Your task to perform on an android device: change your default location settings in chrome Image 0: 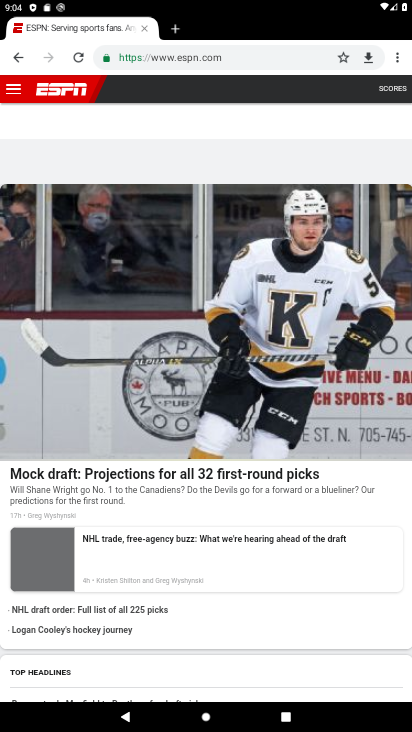
Step 0: click (399, 58)
Your task to perform on an android device: change your default location settings in chrome Image 1: 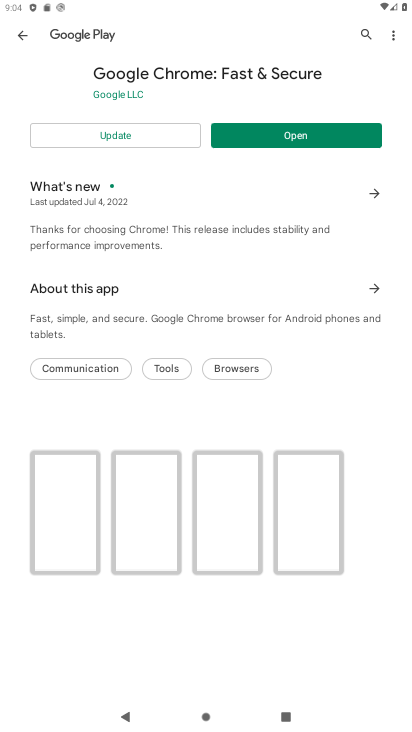
Step 1: press back button
Your task to perform on an android device: change your default location settings in chrome Image 2: 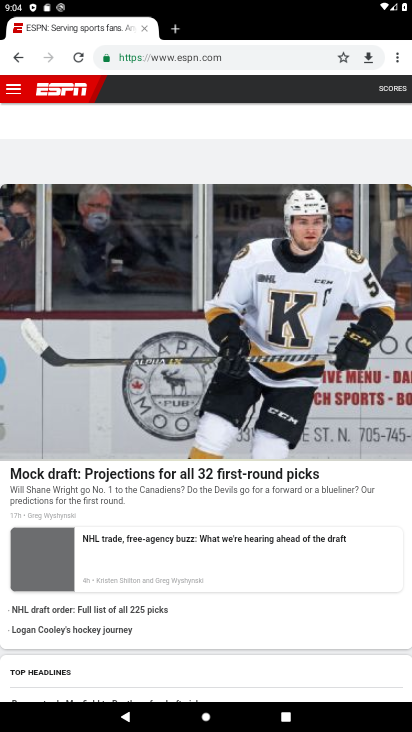
Step 2: click (375, 102)
Your task to perform on an android device: change your default location settings in chrome Image 3: 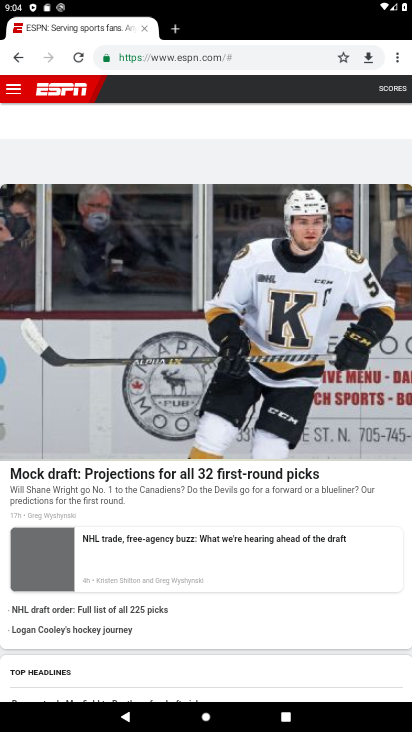
Step 3: click (398, 55)
Your task to perform on an android device: change your default location settings in chrome Image 4: 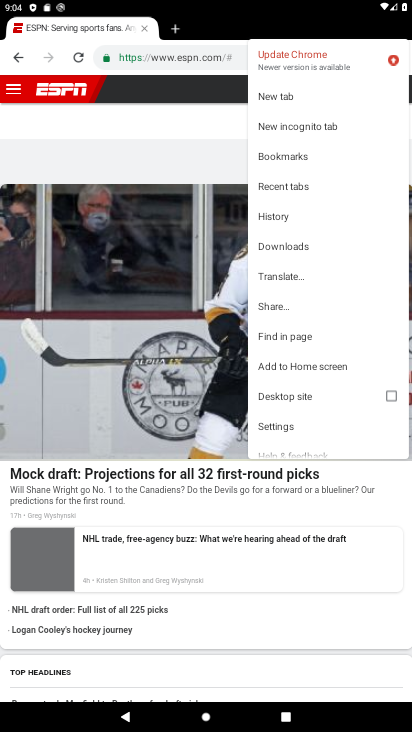
Step 4: click (282, 422)
Your task to perform on an android device: change your default location settings in chrome Image 5: 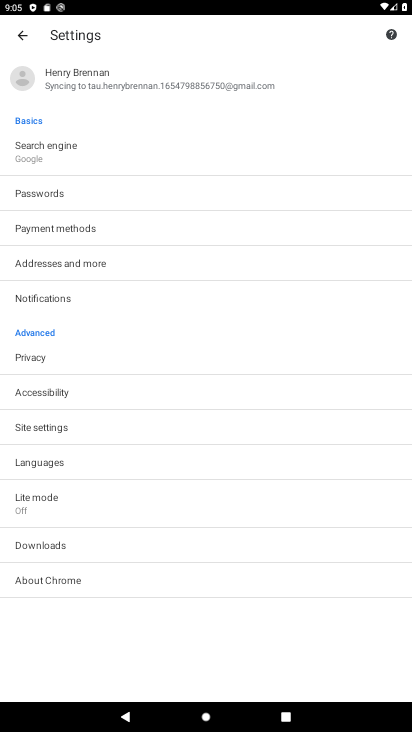
Step 5: drag from (48, 504) to (112, 340)
Your task to perform on an android device: change your default location settings in chrome Image 6: 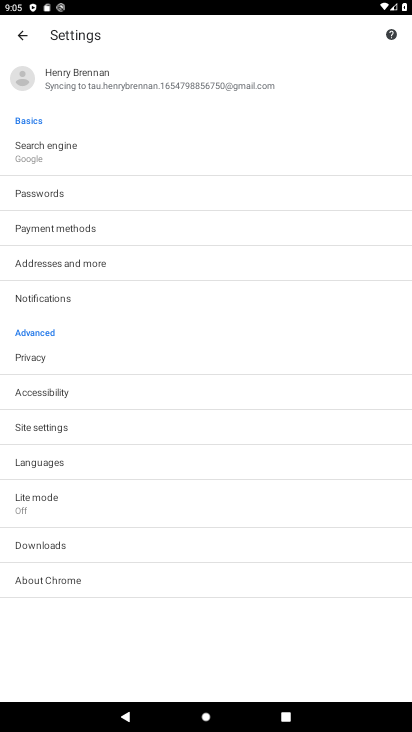
Step 6: click (61, 428)
Your task to perform on an android device: change your default location settings in chrome Image 7: 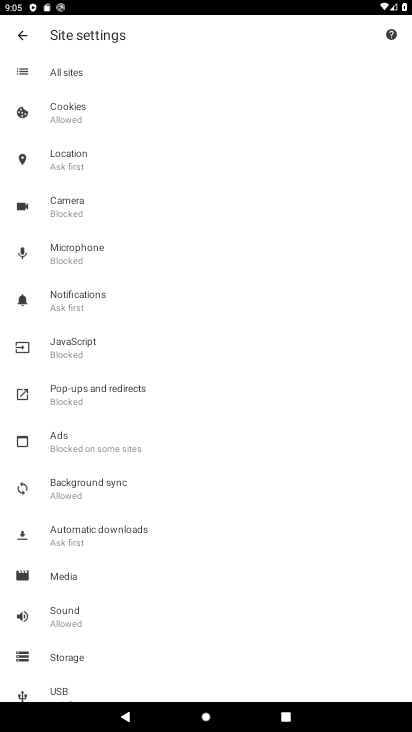
Step 7: drag from (95, 495) to (105, 402)
Your task to perform on an android device: change your default location settings in chrome Image 8: 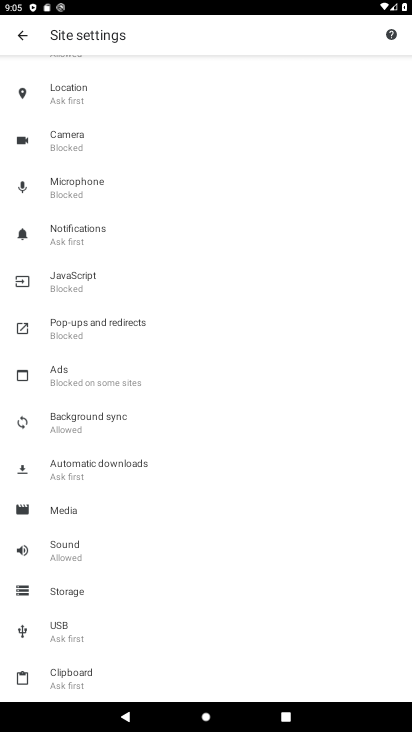
Step 8: click (78, 91)
Your task to perform on an android device: change your default location settings in chrome Image 9: 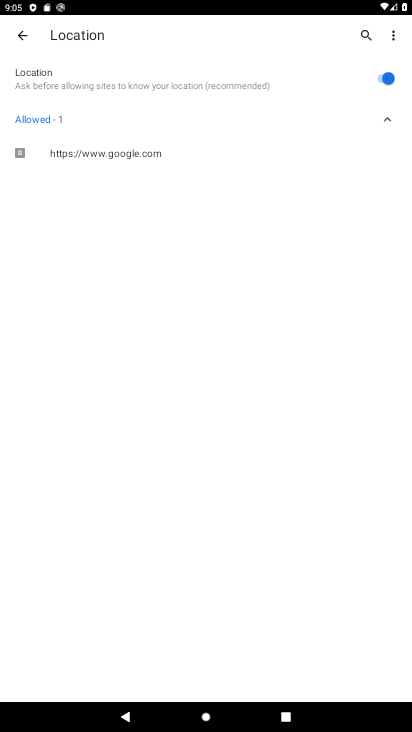
Step 9: click (375, 78)
Your task to perform on an android device: change your default location settings in chrome Image 10: 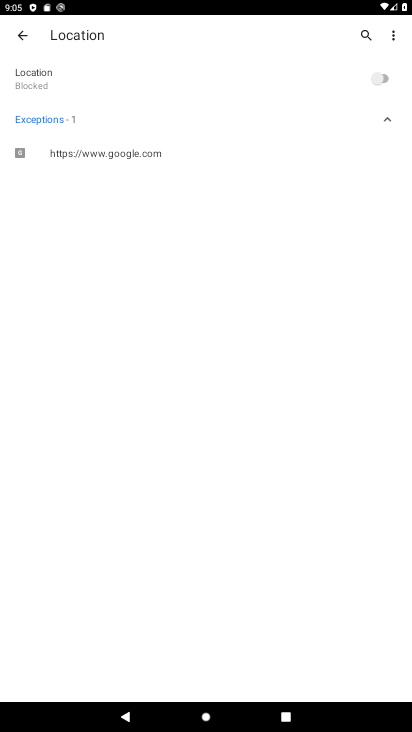
Step 10: task complete